Your task to perform on an android device: Show me popular games on the Play Store Image 0: 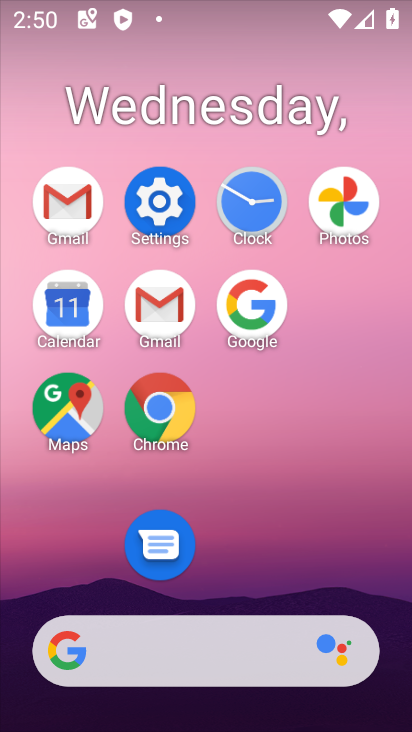
Step 0: drag from (259, 577) to (274, 154)
Your task to perform on an android device: Show me popular games on the Play Store Image 1: 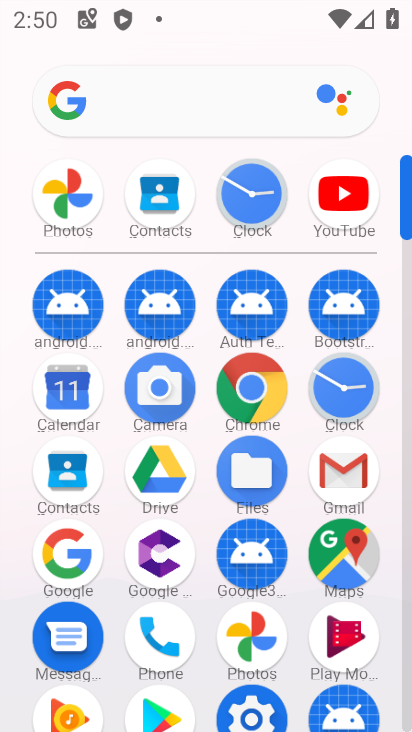
Step 1: drag from (198, 667) to (207, 270)
Your task to perform on an android device: Show me popular games on the Play Store Image 2: 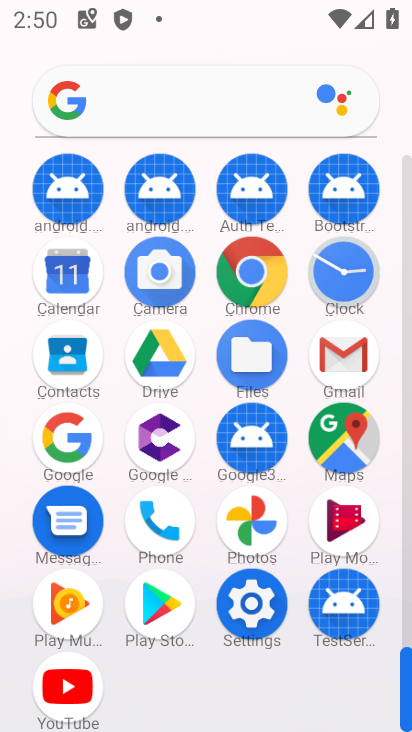
Step 2: click (144, 606)
Your task to perform on an android device: Show me popular games on the Play Store Image 3: 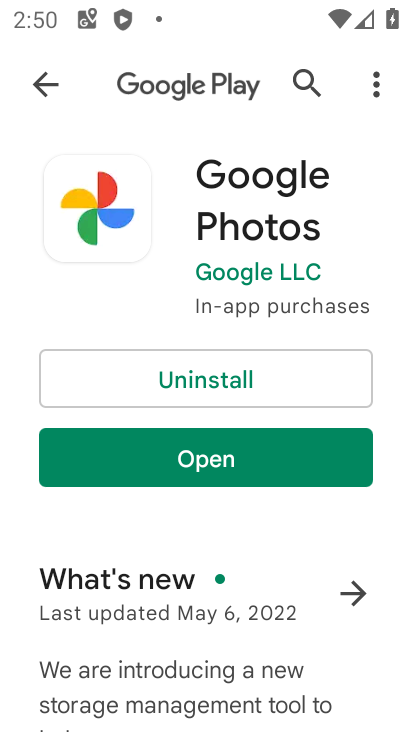
Step 3: click (42, 80)
Your task to perform on an android device: Show me popular games on the Play Store Image 4: 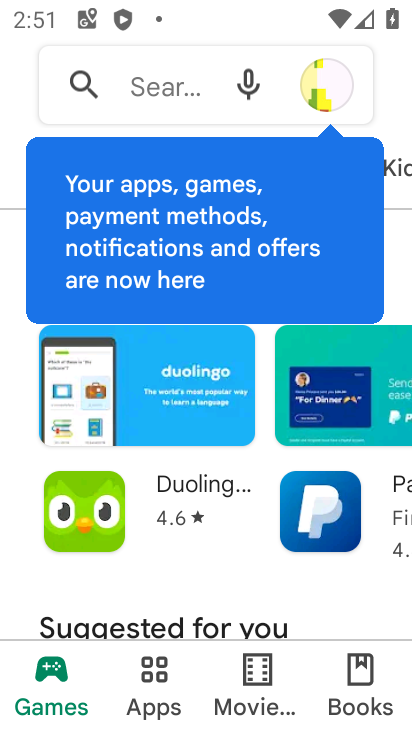
Step 4: drag from (191, 589) to (178, 220)
Your task to perform on an android device: Show me popular games on the Play Store Image 5: 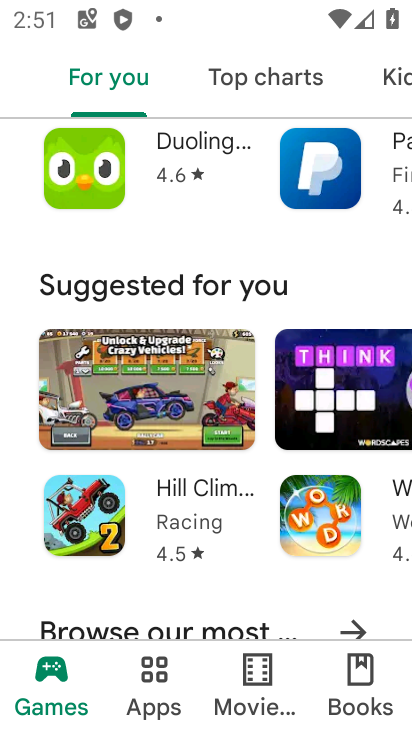
Step 5: drag from (216, 318) to (212, 228)
Your task to perform on an android device: Show me popular games on the Play Store Image 6: 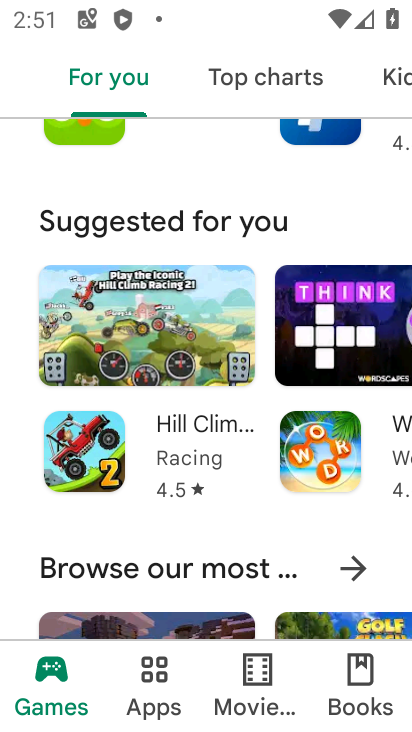
Step 6: click (208, 229)
Your task to perform on an android device: Show me popular games on the Play Store Image 7: 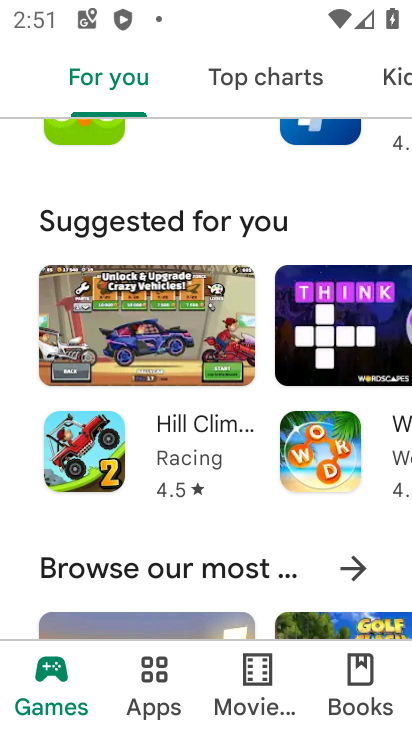
Step 7: click (313, 566)
Your task to perform on an android device: Show me popular games on the Play Store Image 8: 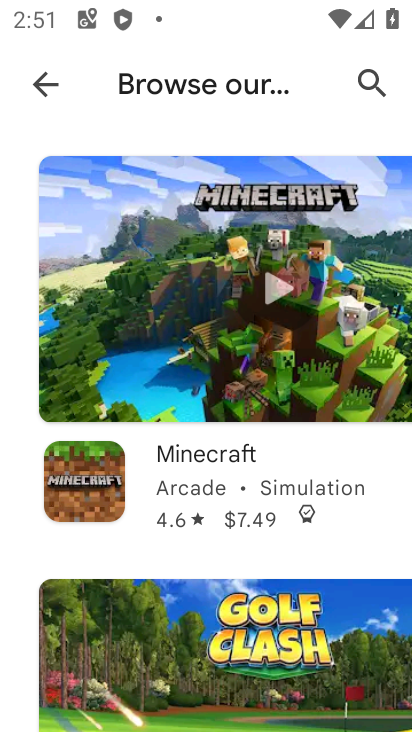
Step 8: task complete